Your task to perform on an android device: find photos in the google photos app Image 0: 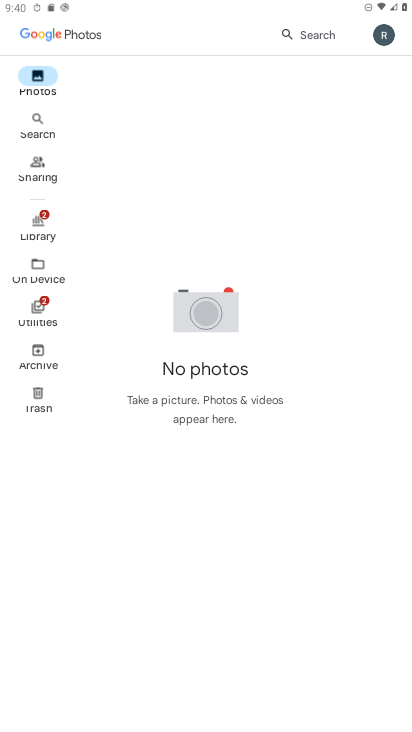
Step 0: press home button
Your task to perform on an android device: find photos in the google photos app Image 1: 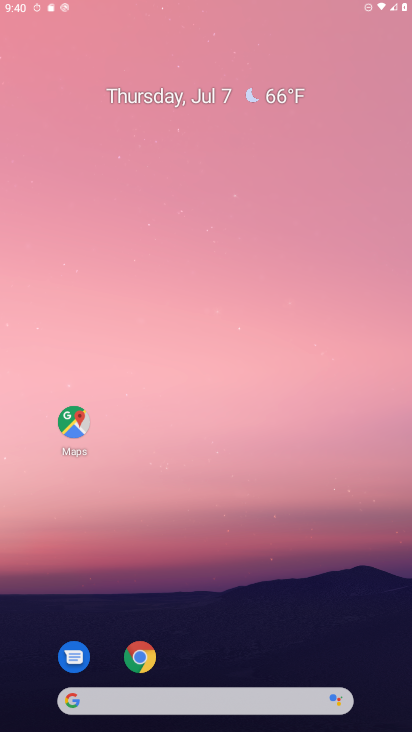
Step 1: drag from (390, 688) to (311, 217)
Your task to perform on an android device: find photos in the google photos app Image 2: 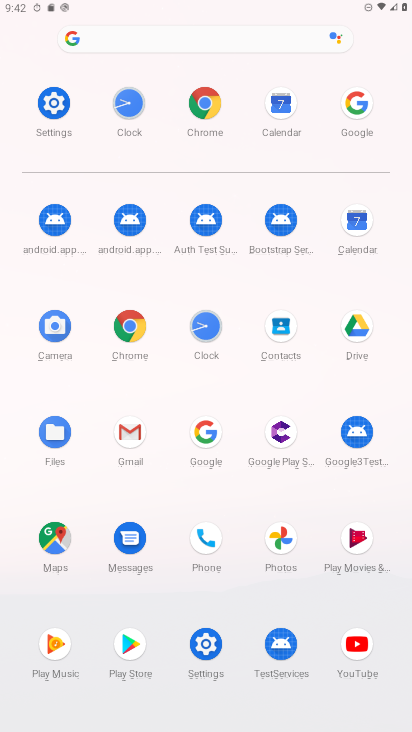
Step 2: click (277, 553)
Your task to perform on an android device: find photos in the google photos app Image 3: 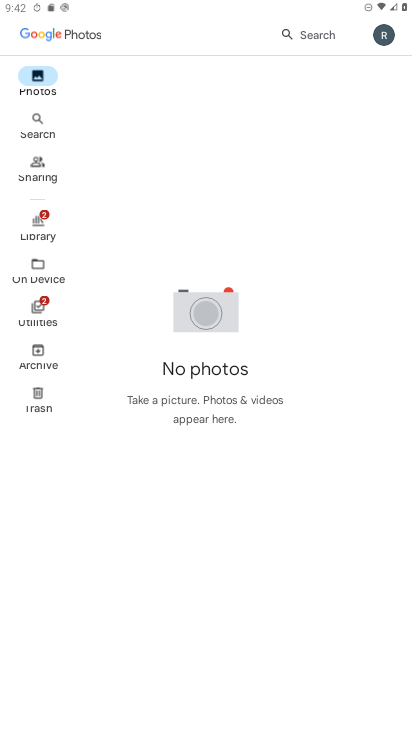
Step 3: task complete